Your task to perform on an android device: Clear all items from cart on newegg. Search for "razer deathadder" on newegg, select the first entry, and add it to the cart. Image 0: 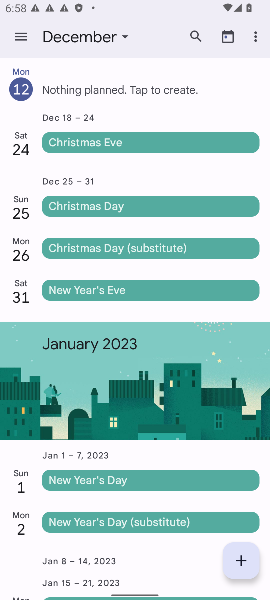
Step 0: press home button
Your task to perform on an android device: Clear all items from cart on newegg. Search for "razer deathadder" on newegg, select the first entry, and add it to the cart. Image 1: 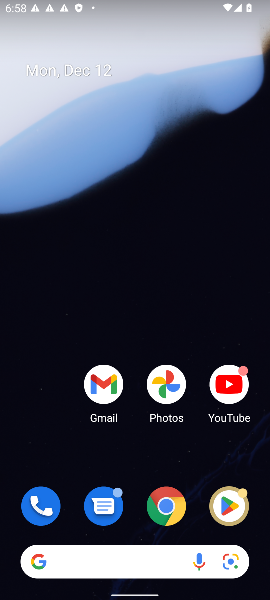
Step 1: click (173, 550)
Your task to perform on an android device: Clear all items from cart on newegg. Search for "razer deathadder" on newegg, select the first entry, and add it to the cart. Image 2: 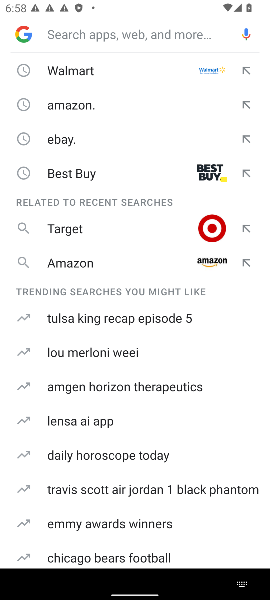
Step 2: type "newegg"
Your task to perform on an android device: Clear all items from cart on newegg. Search for "razer deathadder" on newegg, select the first entry, and add it to the cart. Image 3: 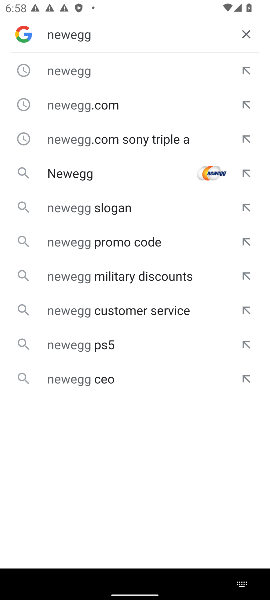
Step 3: click (83, 185)
Your task to perform on an android device: Clear all items from cart on newegg. Search for "razer deathadder" on newegg, select the first entry, and add it to the cart. Image 4: 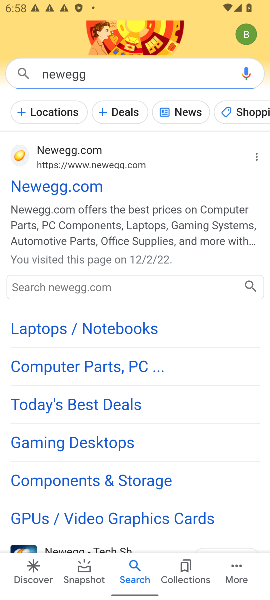
Step 4: click (83, 185)
Your task to perform on an android device: Clear all items from cart on newegg. Search for "razer deathadder" on newegg, select the first entry, and add it to the cart. Image 5: 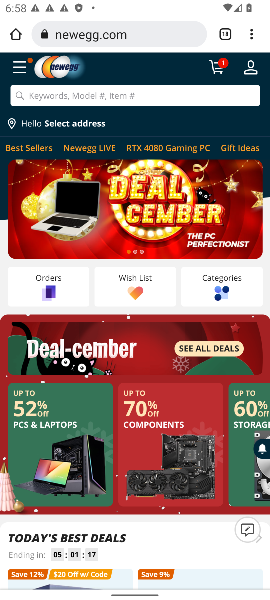
Step 5: click (83, 92)
Your task to perform on an android device: Clear all items from cart on newegg. Search for "razer deathadder" on newegg, select the first entry, and add it to the cart. Image 6: 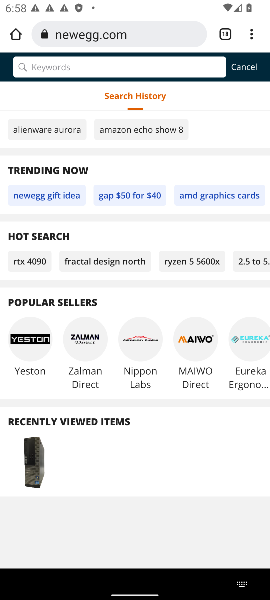
Step 6: type "razer deathadder"
Your task to perform on an android device: Clear all items from cart on newegg. Search for "razer deathadder" on newegg, select the first entry, and add it to the cart. Image 7: 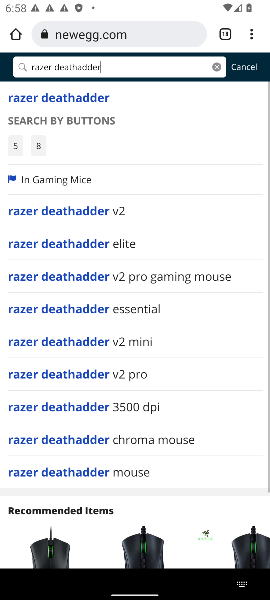
Step 7: click (101, 101)
Your task to perform on an android device: Clear all items from cart on newegg. Search for "razer deathadder" on newegg, select the first entry, and add it to the cart. Image 8: 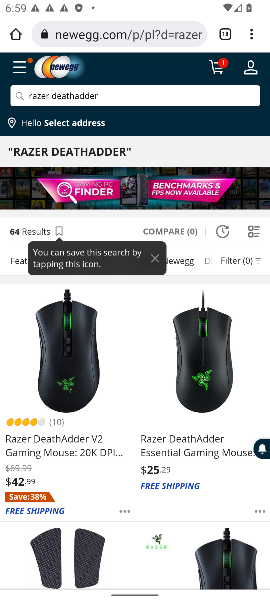
Step 8: click (59, 425)
Your task to perform on an android device: Clear all items from cart on newegg. Search for "razer deathadder" on newegg, select the first entry, and add it to the cart. Image 9: 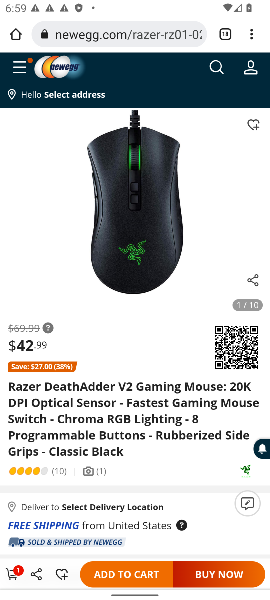
Step 9: click (131, 572)
Your task to perform on an android device: Clear all items from cart on newegg. Search for "razer deathadder" on newegg, select the first entry, and add it to the cart. Image 10: 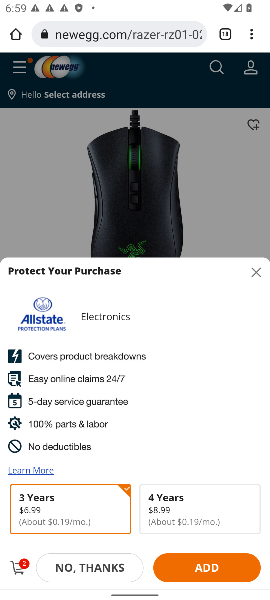
Step 10: task complete